Your task to perform on an android device: open app "Expedia: Hotels, Flights & Car" (install if not already installed) Image 0: 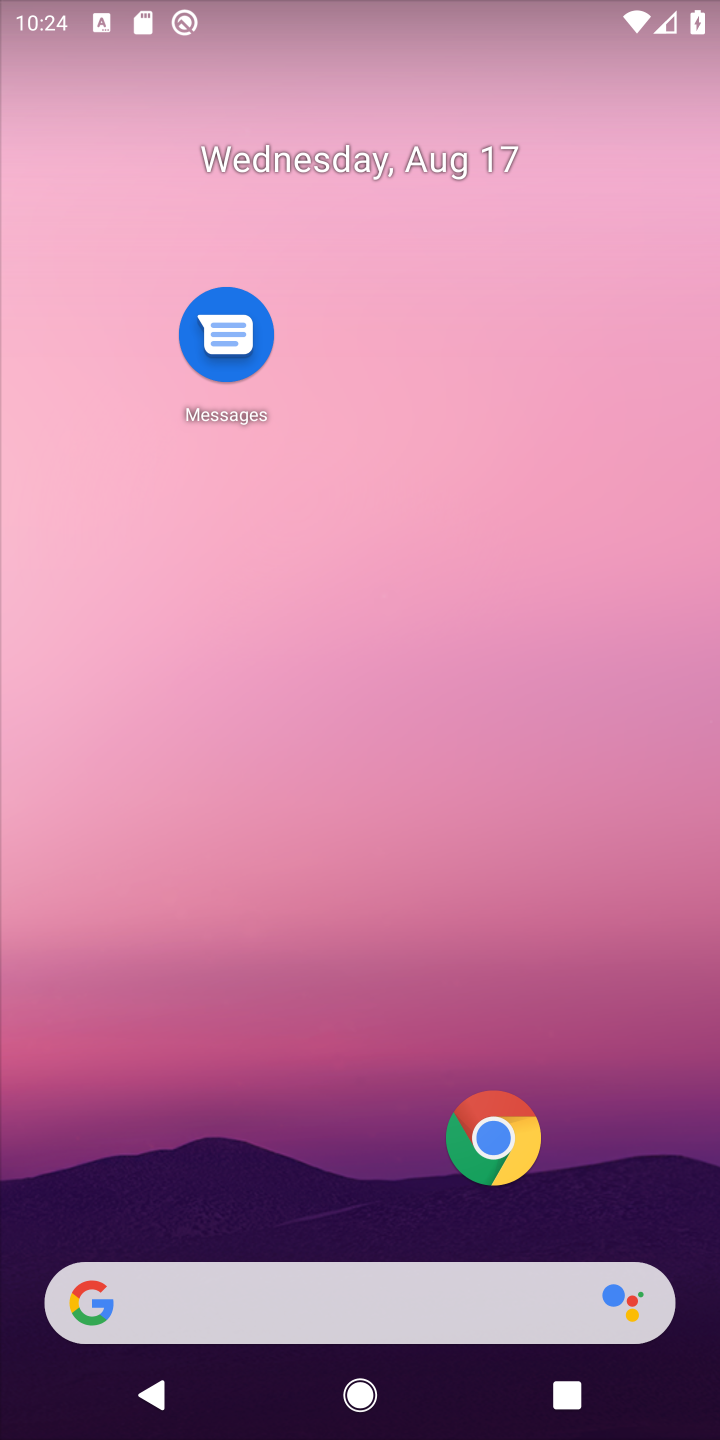
Step 0: drag from (160, 1193) to (365, 116)
Your task to perform on an android device: open app "Expedia: Hotels, Flights & Car" (install if not already installed) Image 1: 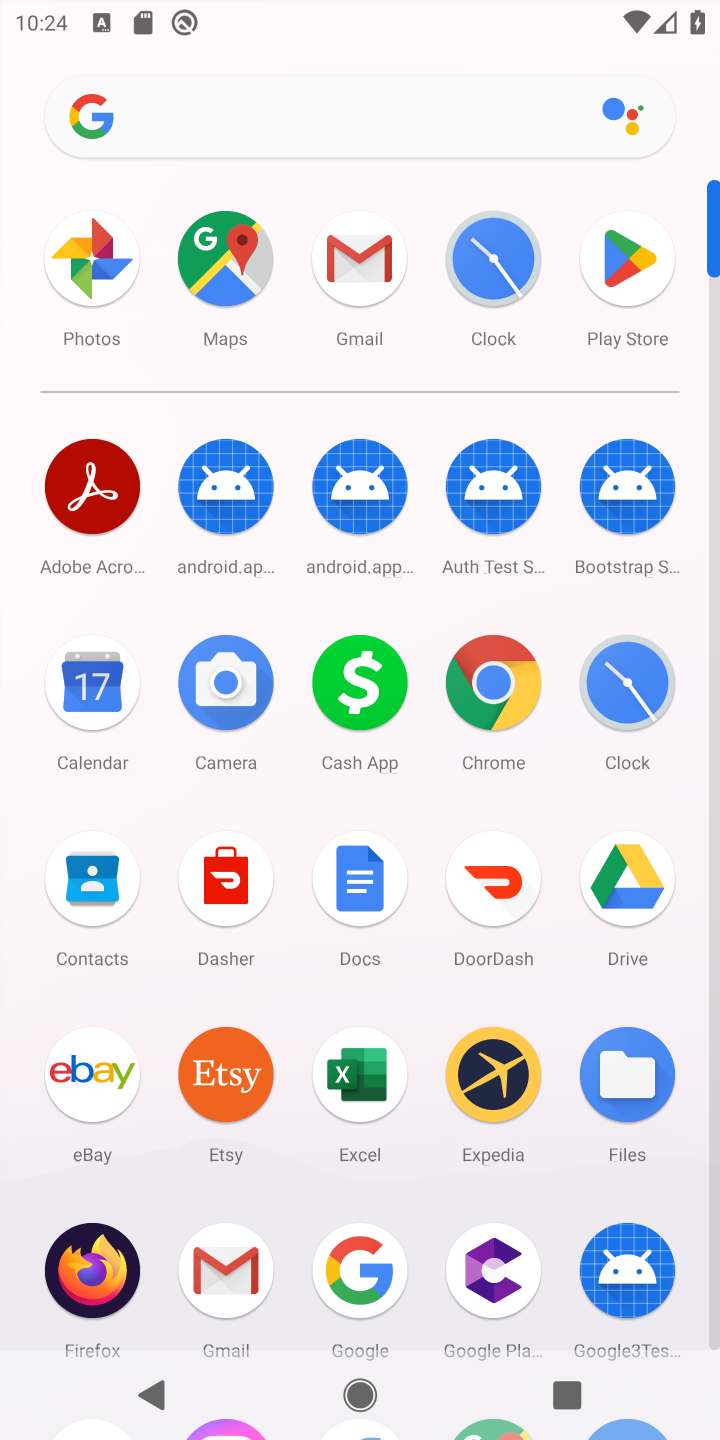
Step 1: click (614, 266)
Your task to perform on an android device: open app "Expedia: Hotels, Flights & Car" (install if not already installed) Image 2: 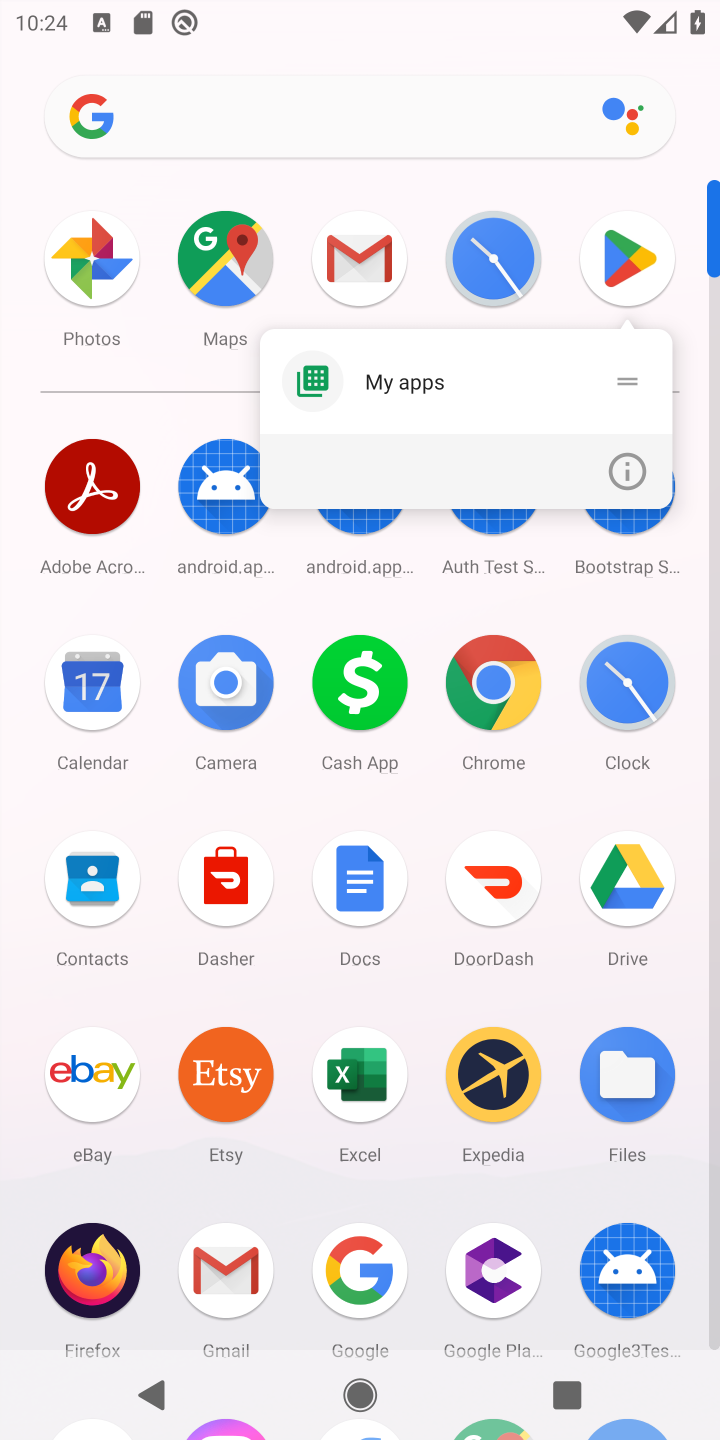
Step 2: click (622, 280)
Your task to perform on an android device: open app "Expedia: Hotels, Flights & Car" (install if not already installed) Image 3: 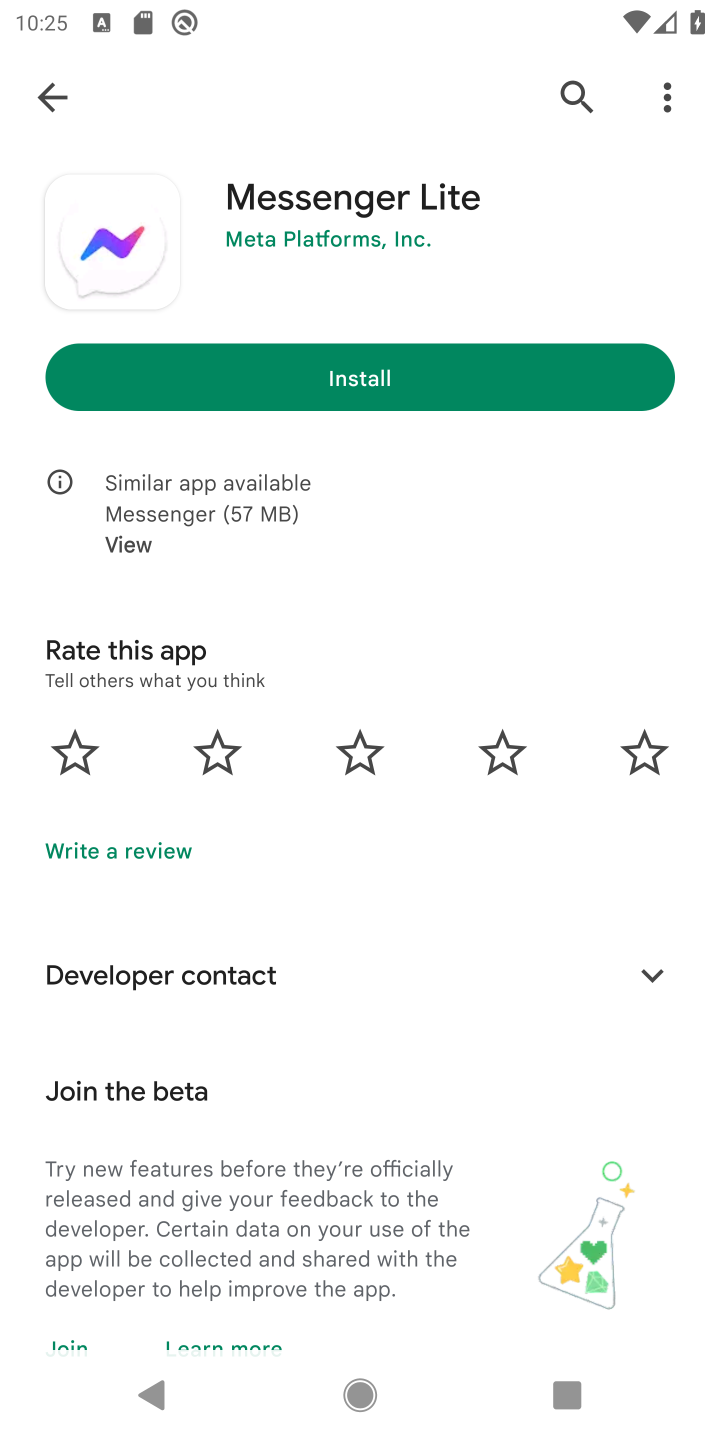
Step 3: click (56, 74)
Your task to perform on an android device: open app "Expedia: Hotels, Flights & Car" (install if not already installed) Image 4: 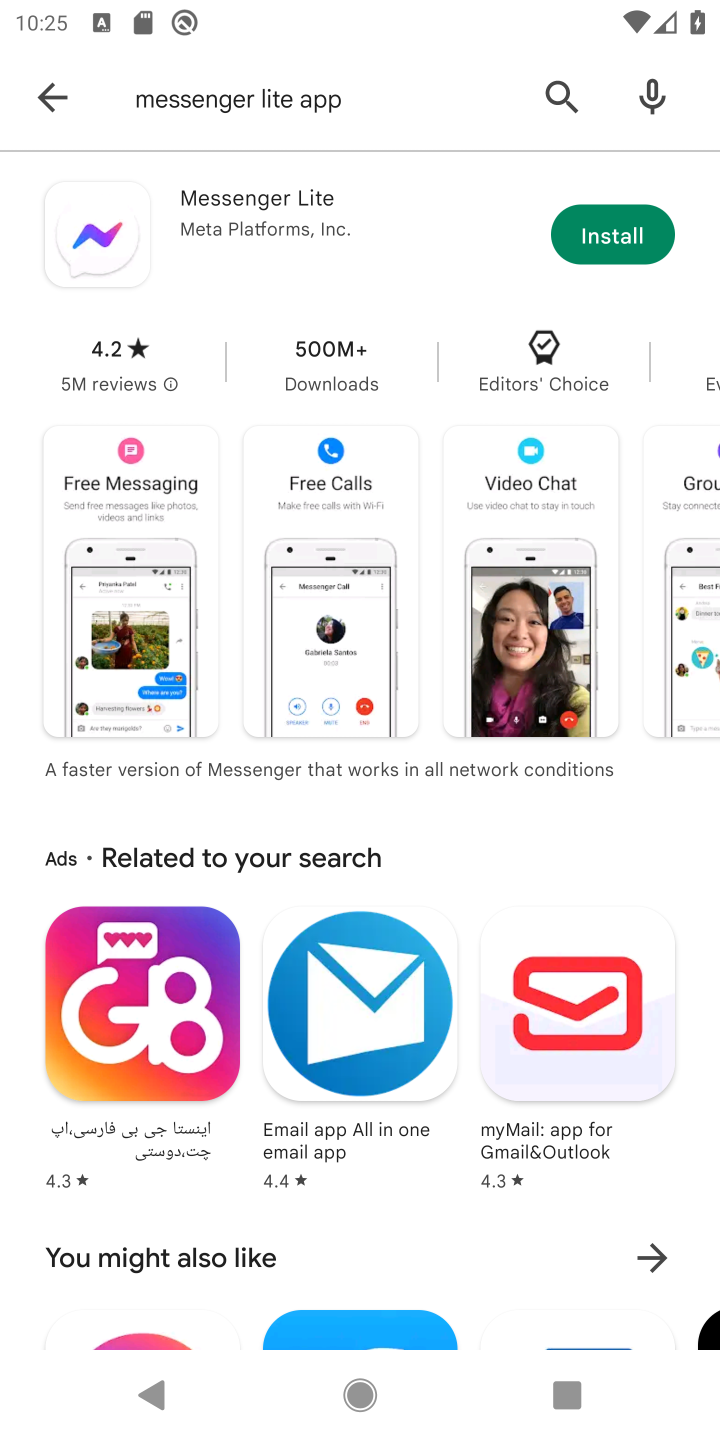
Step 4: click (62, 84)
Your task to perform on an android device: open app "Expedia: Hotels, Flights & Car" (install if not already installed) Image 5: 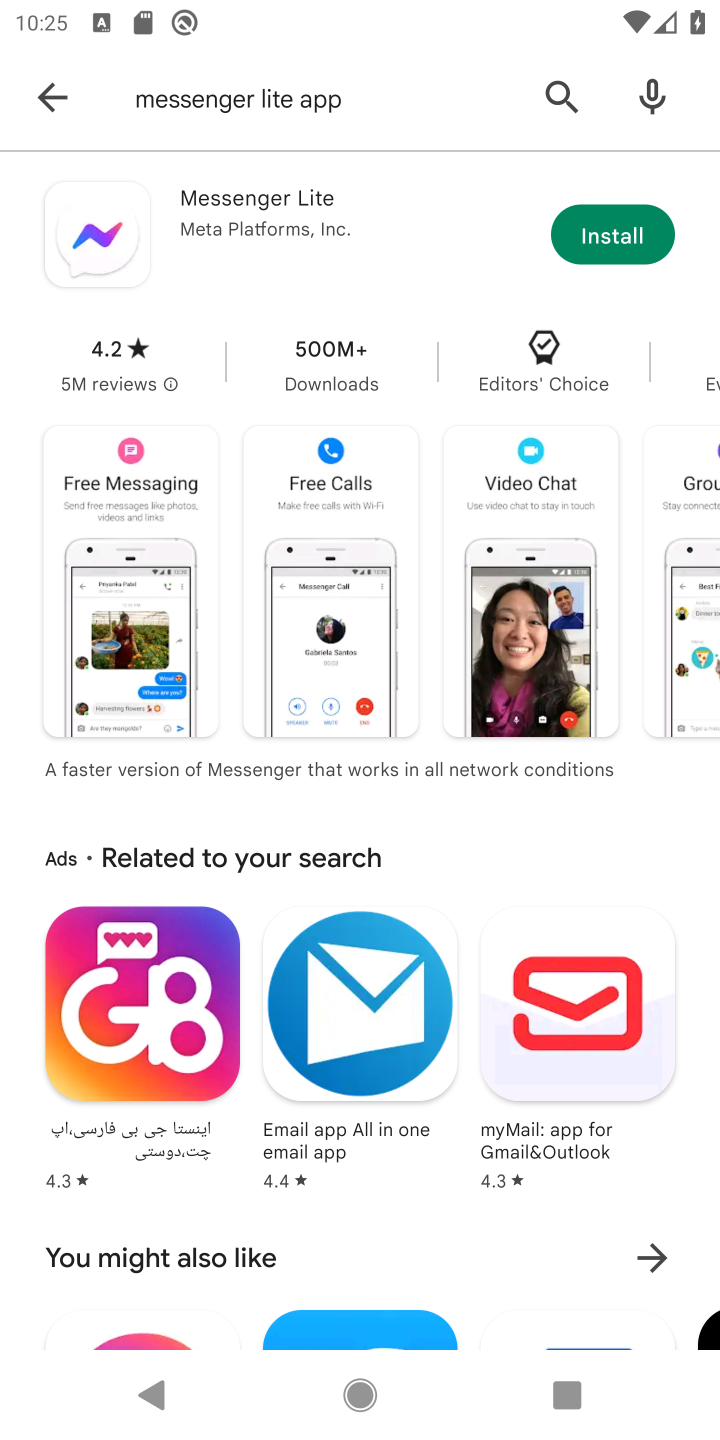
Step 5: click (62, 84)
Your task to perform on an android device: open app "Expedia: Hotels, Flights & Car" (install if not already installed) Image 6: 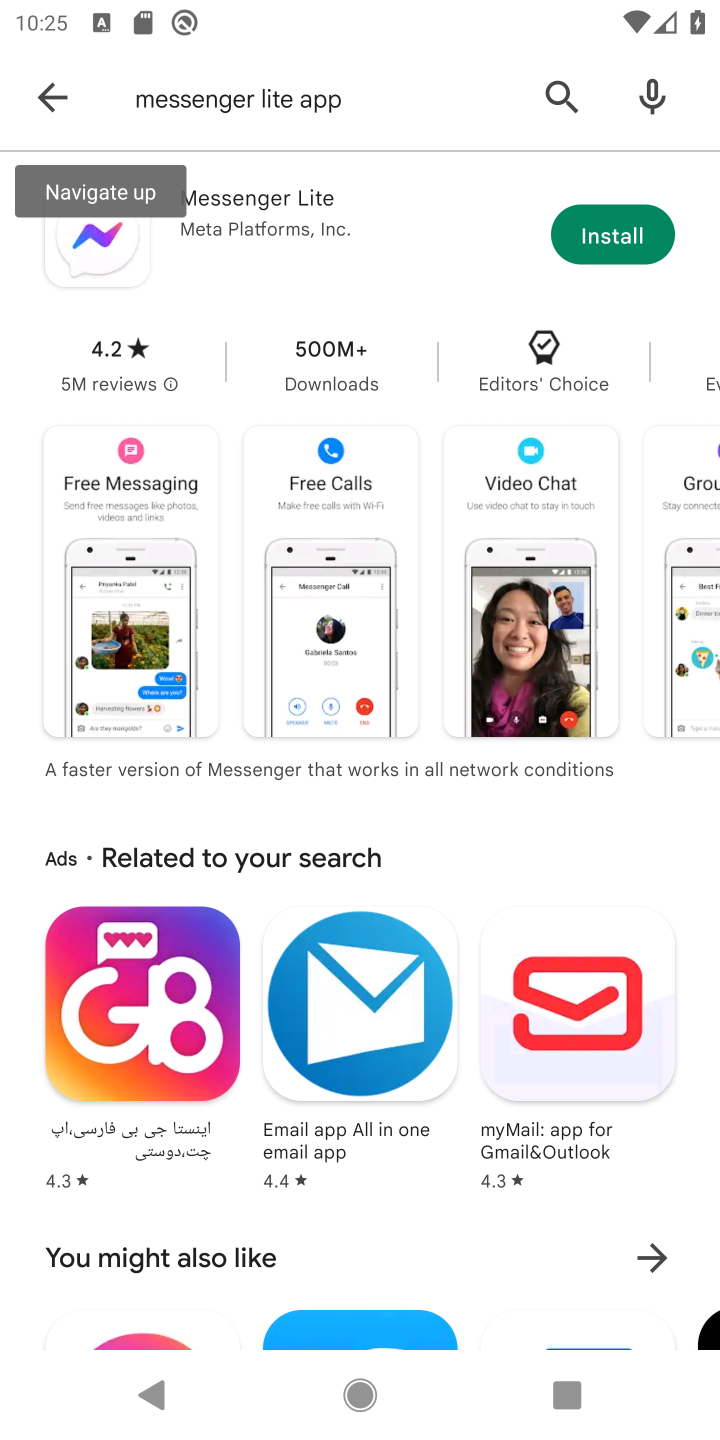
Step 6: click (55, 85)
Your task to perform on an android device: open app "Expedia: Hotels, Flights & Car" (install if not already installed) Image 7: 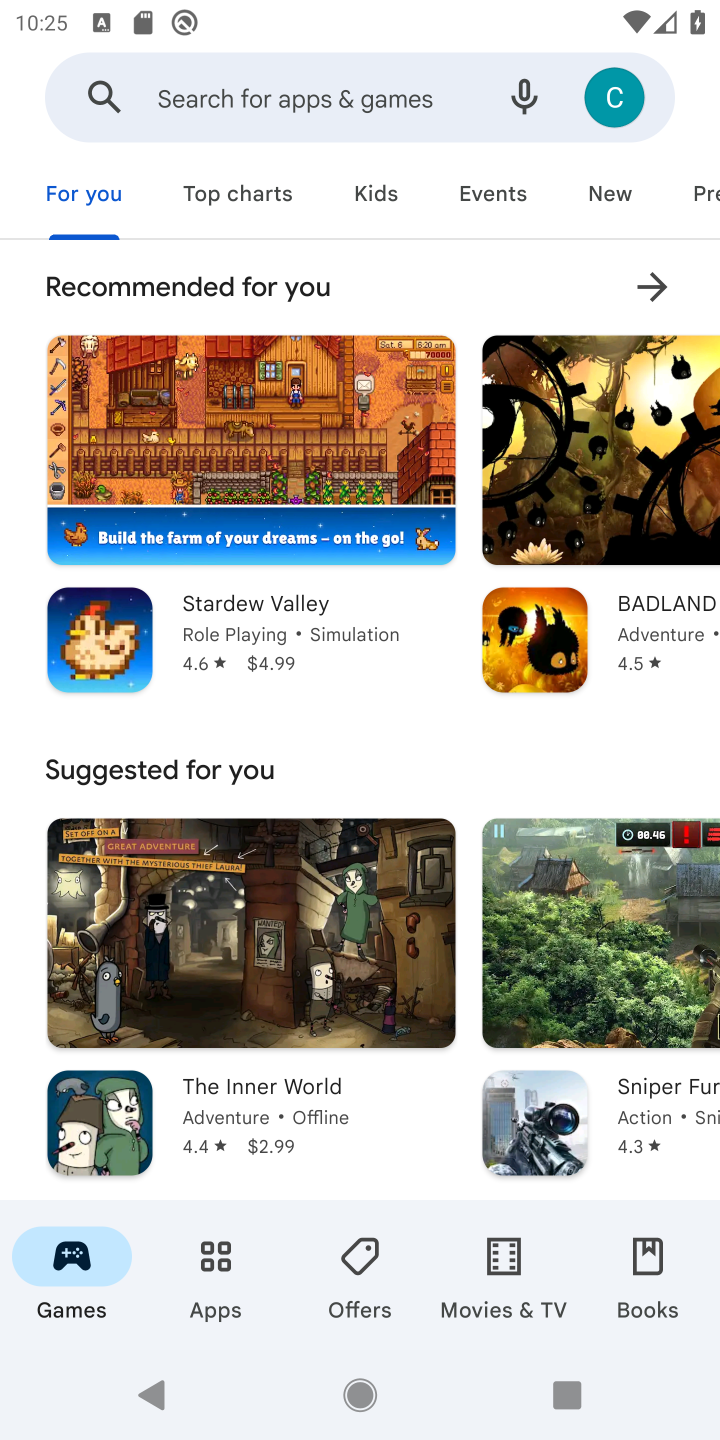
Step 7: click (343, 91)
Your task to perform on an android device: open app "Expedia: Hotels, Flights & Car" (install if not already installed) Image 8: 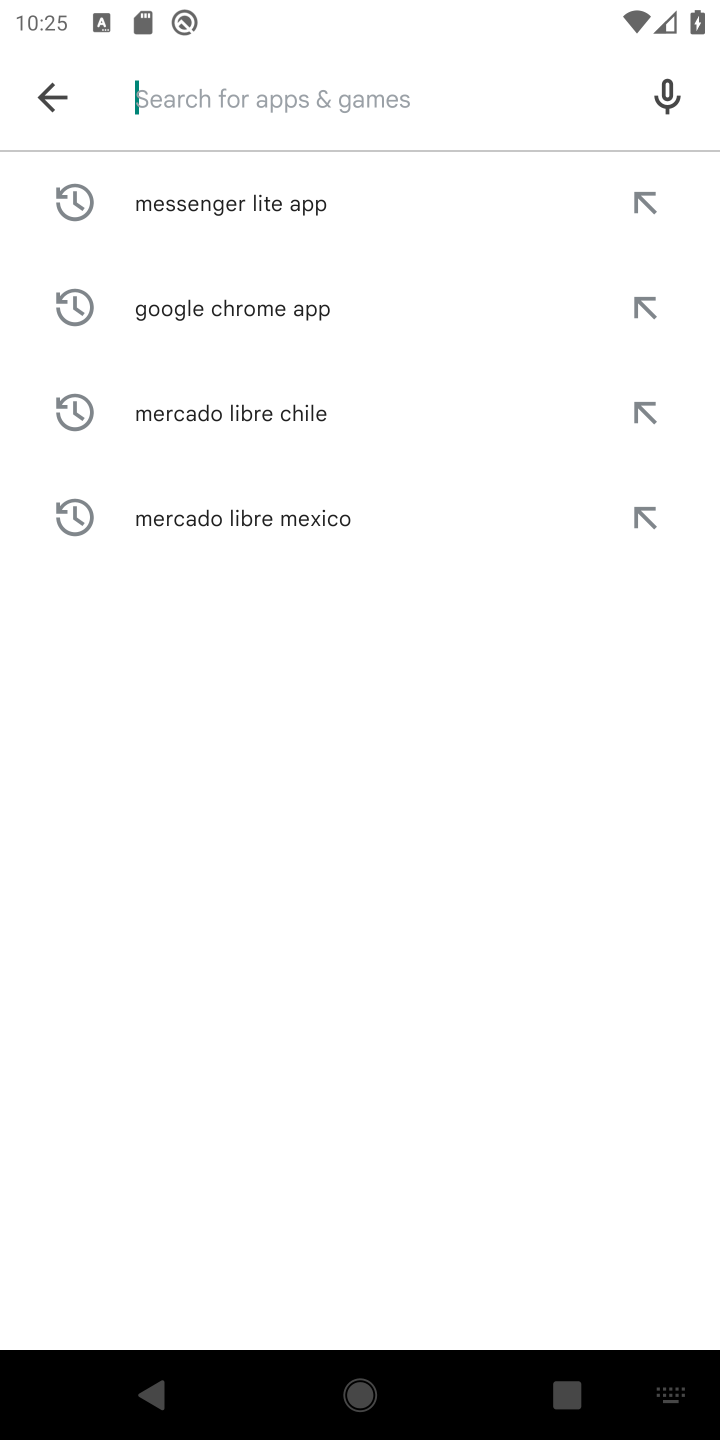
Step 8: type "Expedia: Hotels, Flights & Car "
Your task to perform on an android device: open app "Expedia: Hotels, Flights & Car" (install if not already installed) Image 9: 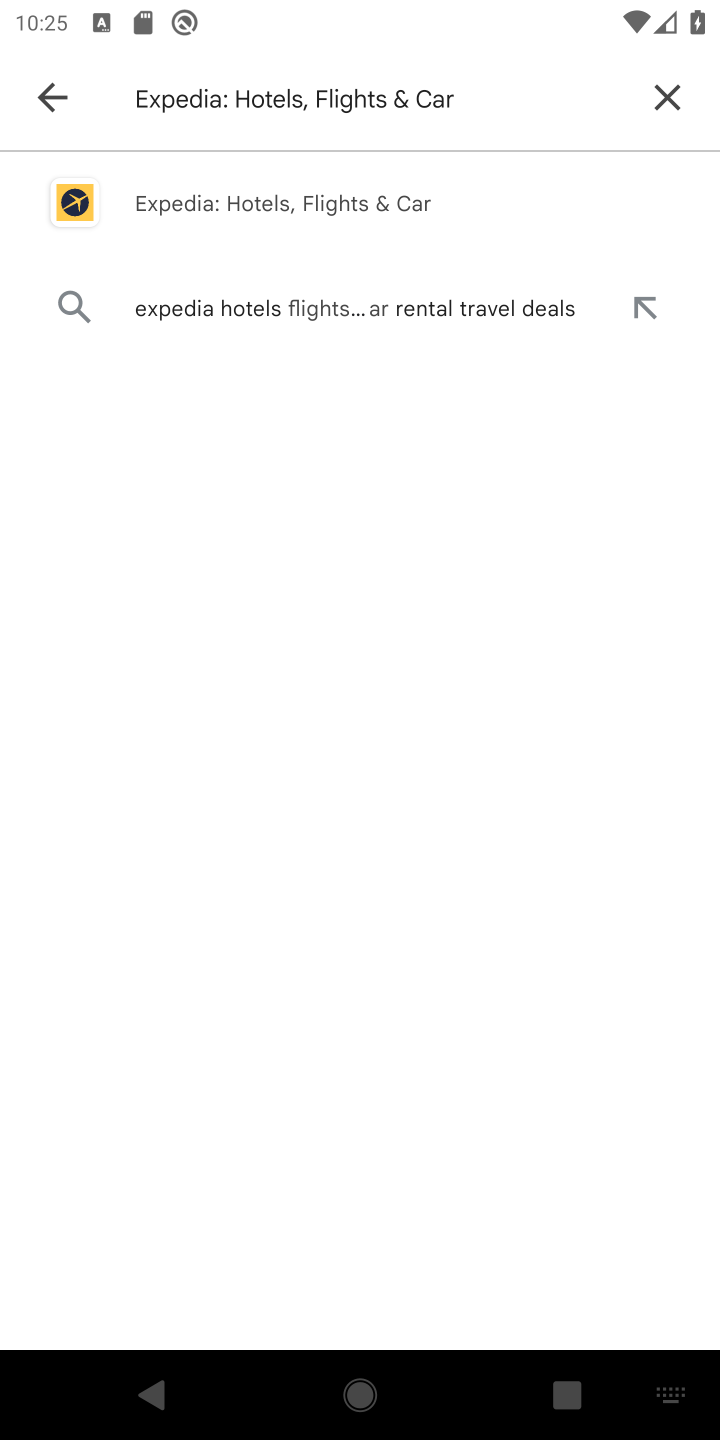
Step 9: click (291, 194)
Your task to perform on an android device: open app "Expedia: Hotels, Flights & Car" (install if not already installed) Image 10: 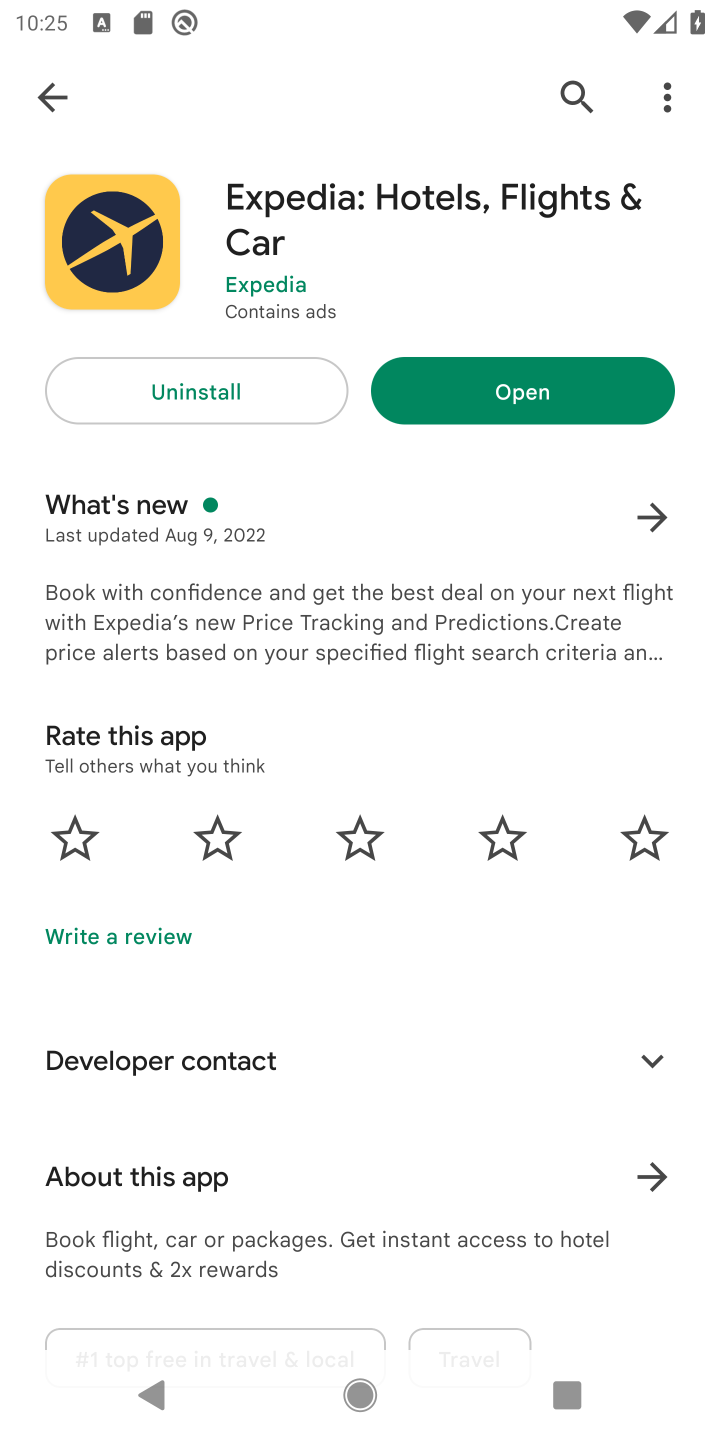
Step 10: click (497, 401)
Your task to perform on an android device: open app "Expedia: Hotels, Flights & Car" (install if not already installed) Image 11: 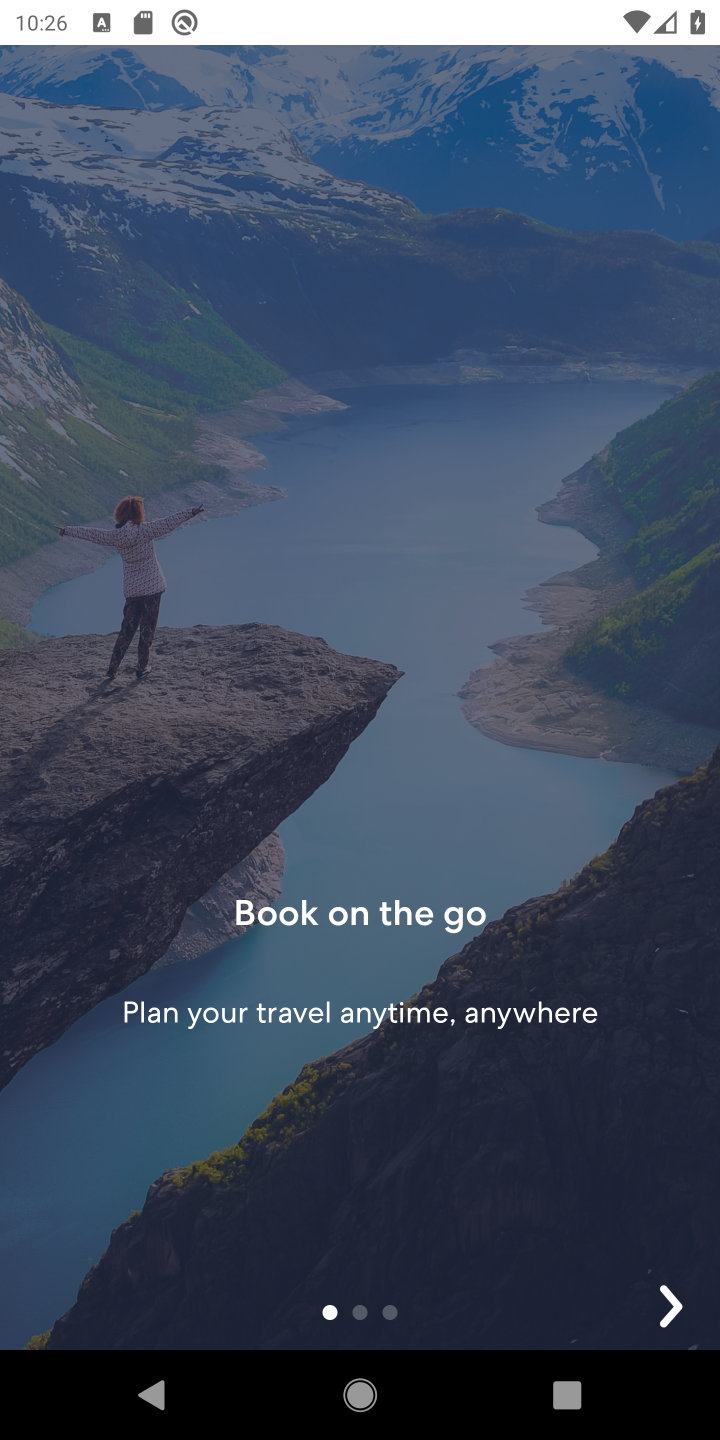
Step 11: click (682, 1297)
Your task to perform on an android device: open app "Expedia: Hotels, Flights & Car" (install if not already installed) Image 12: 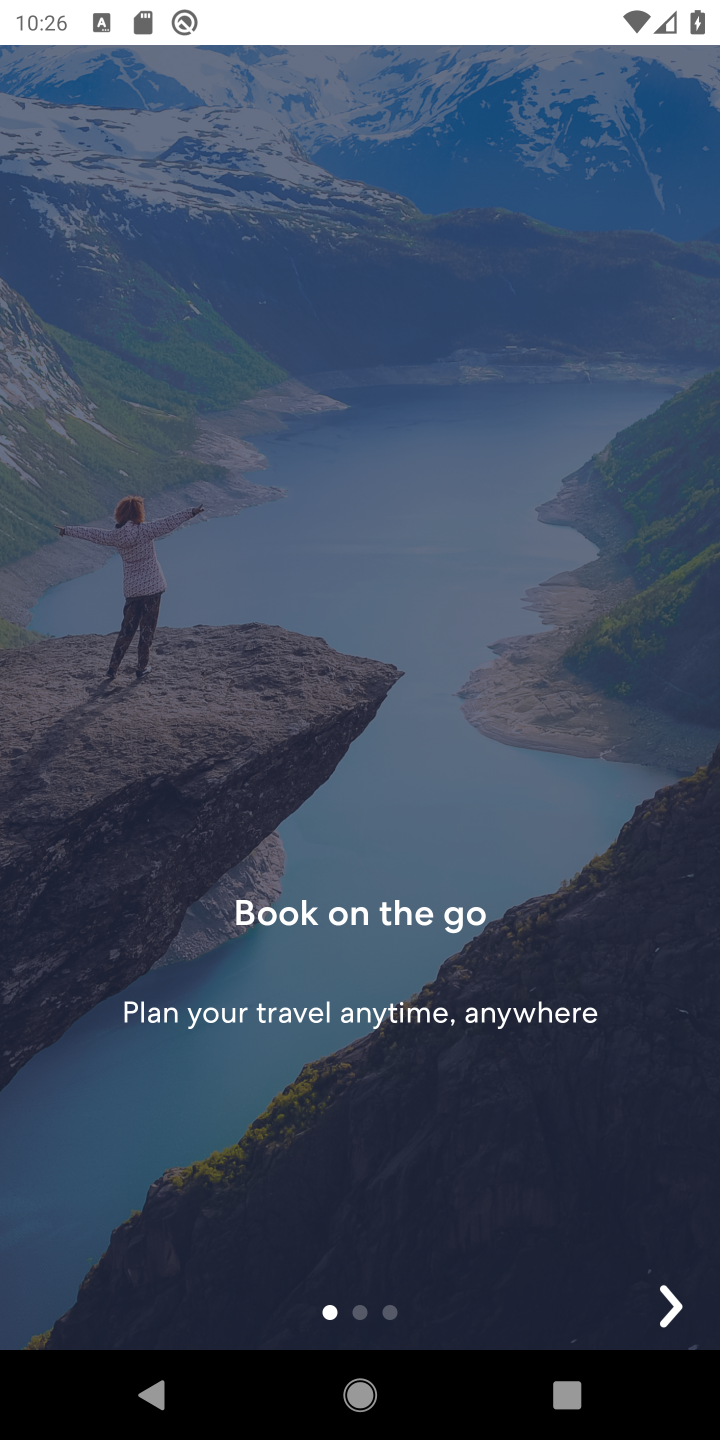
Step 12: click (682, 1297)
Your task to perform on an android device: open app "Expedia: Hotels, Flights & Car" (install if not already installed) Image 13: 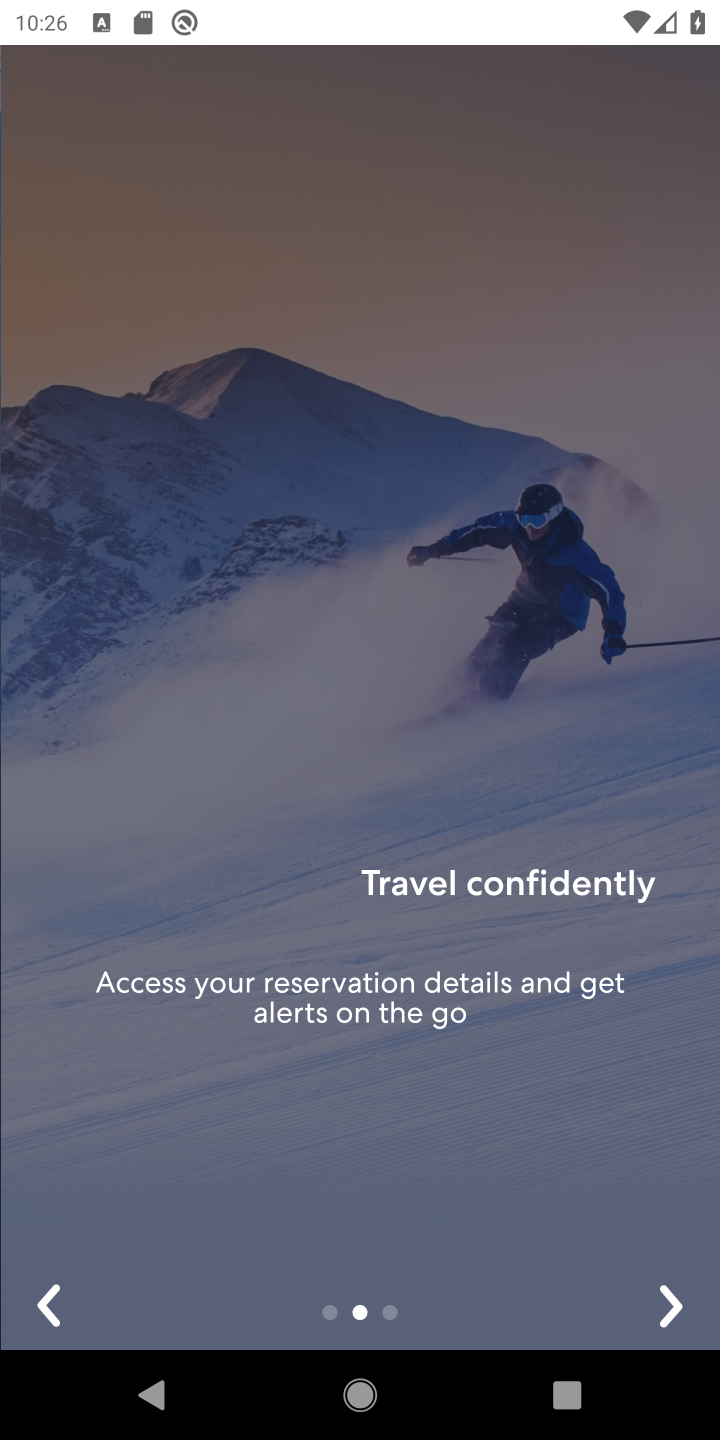
Step 13: click (678, 1300)
Your task to perform on an android device: open app "Expedia: Hotels, Flights & Car" (install if not already installed) Image 14: 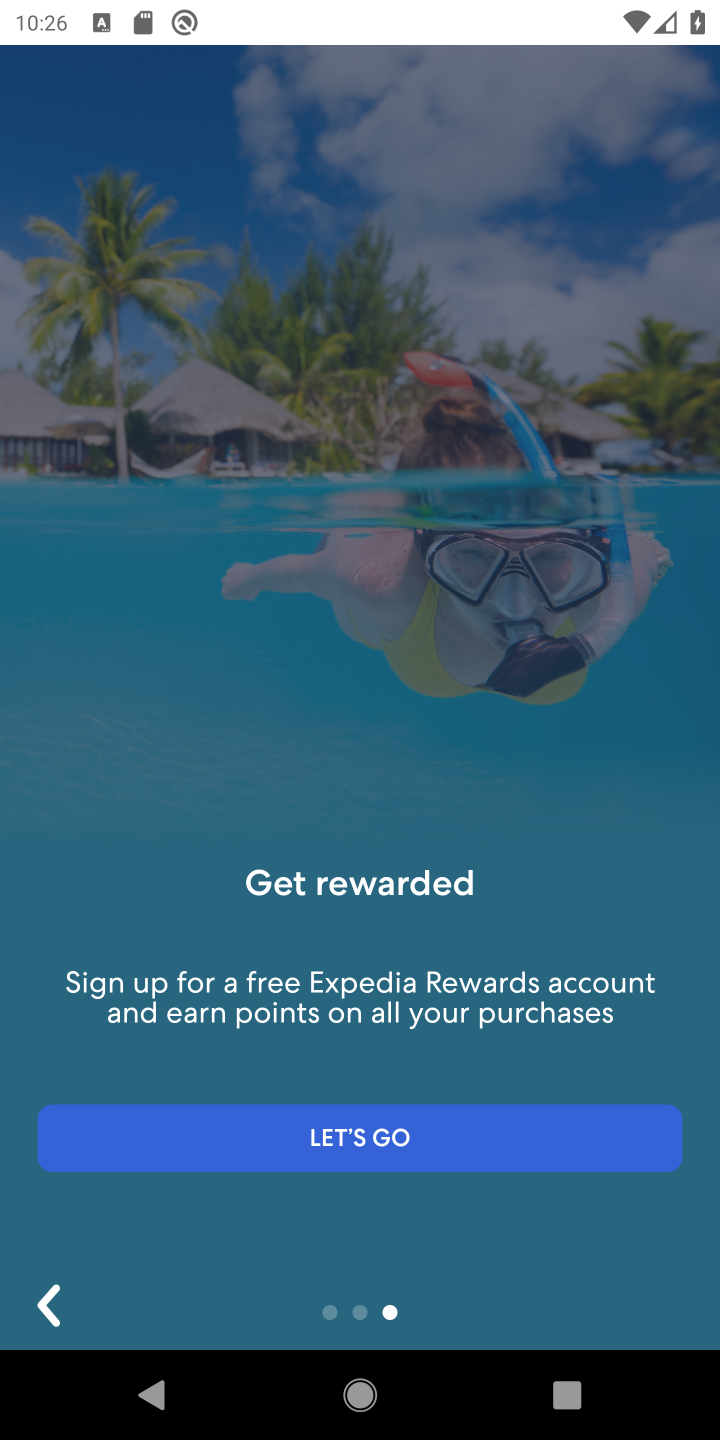
Step 14: click (678, 1300)
Your task to perform on an android device: open app "Expedia: Hotels, Flights & Car" (install if not already installed) Image 15: 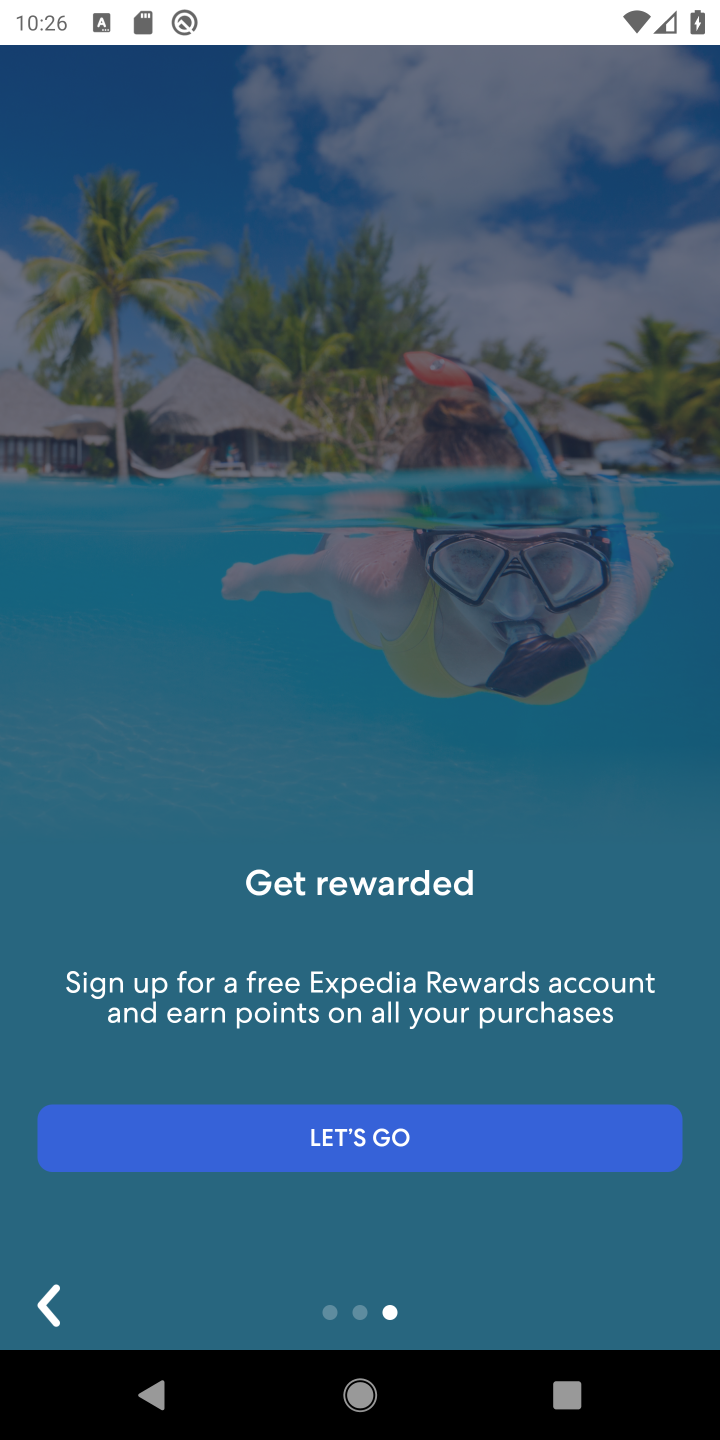
Step 15: task complete